Your task to perform on an android device: Go to Android settings Image 0: 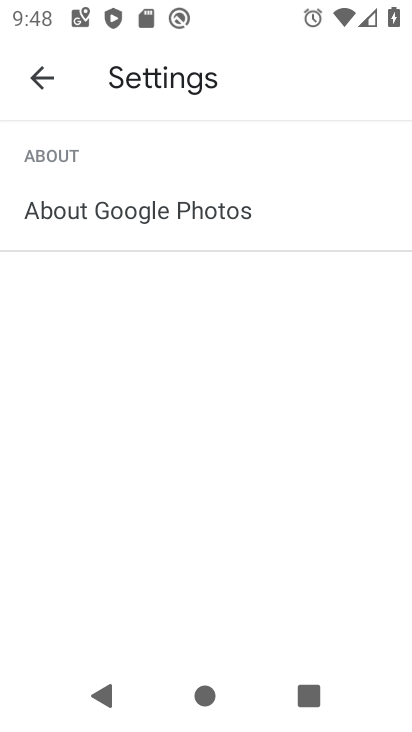
Step 0: press home button
Your task to perform on an android device: Go to Android settings Image 1: 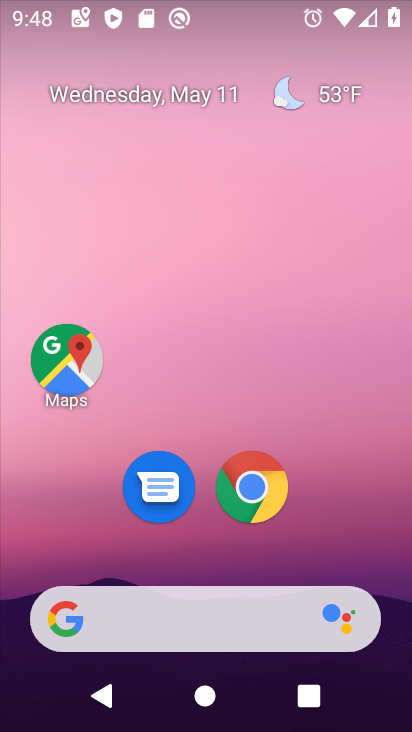
Step 1: drag from (222, 531) to (222, 189)
Your task to perform on an android device: Go to Android settings Image 2: 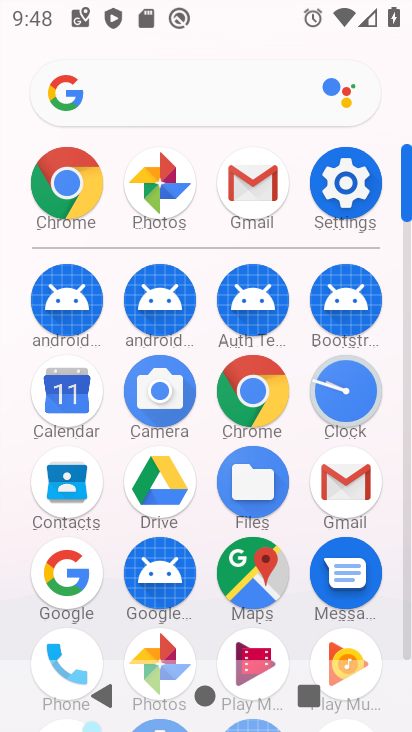
Step 2: click (348, 175)
Your task to perform on an android device: Go to Android settings Image 3: 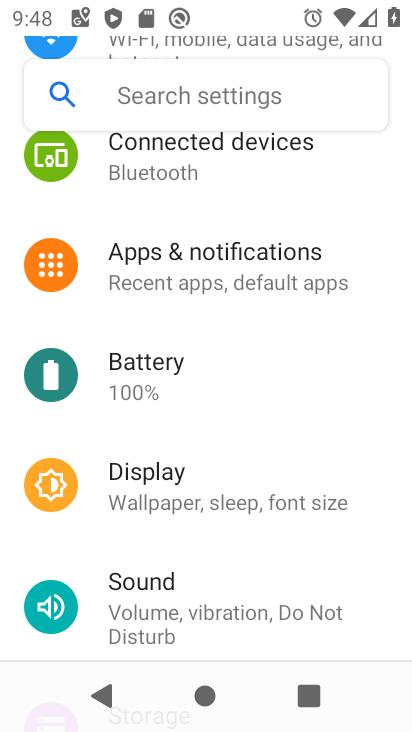
Step 3: task complete